Your task to perform on an android device: Go to sound settings Image 0: 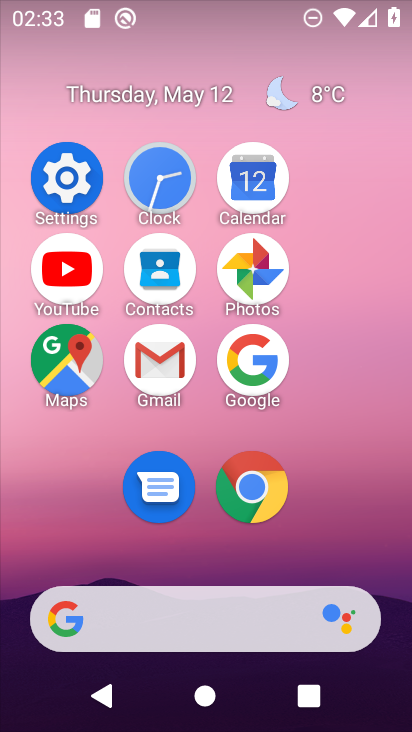
Step 0: click (78, 163)
Your task to perform on an android device: Go to sound settings Image 1: 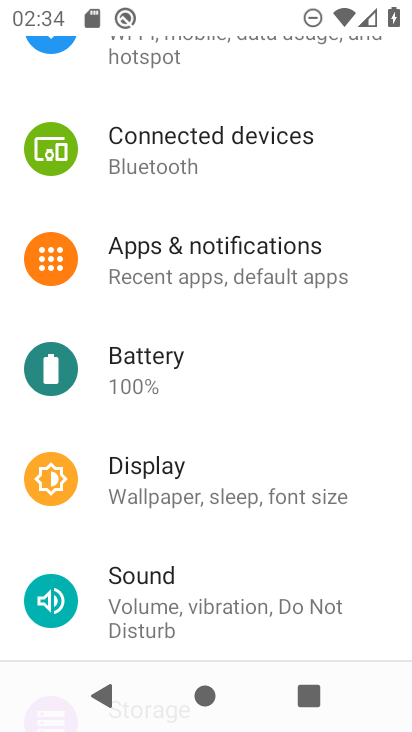
Step 1: click (190, 577)
Your task to perform on an android device: Go to sound settings Image 2: 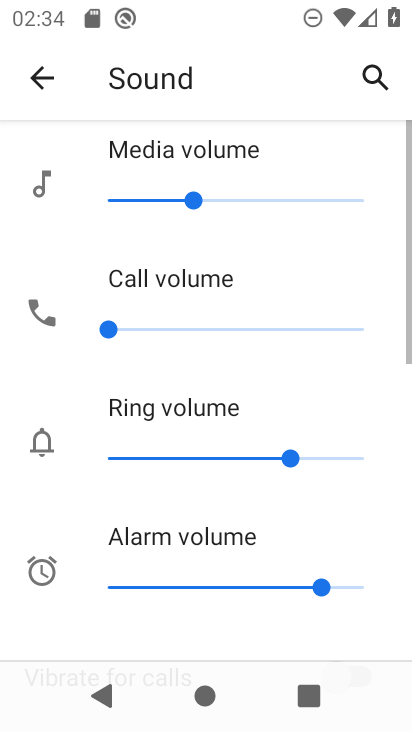
Step 2: task complete